Your task to perform on an android device: toggle translation in the chrome app Image 0: 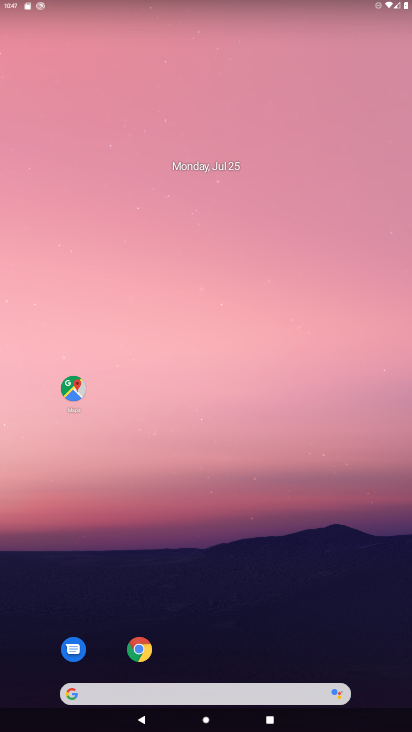
Step 0: click (141, 648)
Your task to perform on an android device: toggle translation in the chrome app Image 1: 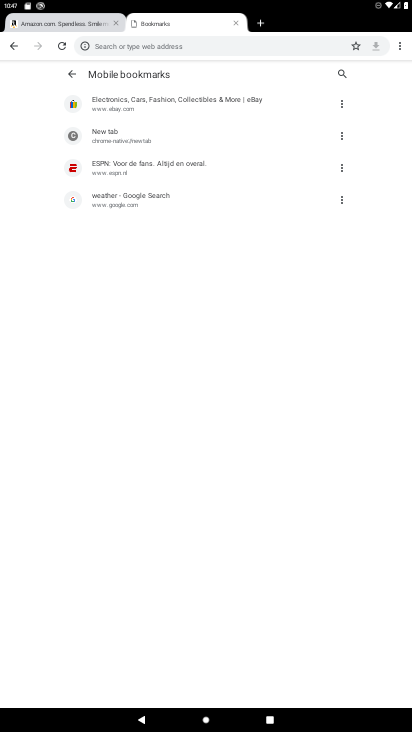
Step 1: click (400, 47)
Your task to perform on an android device: toggle translation in the chrome app Image 2: 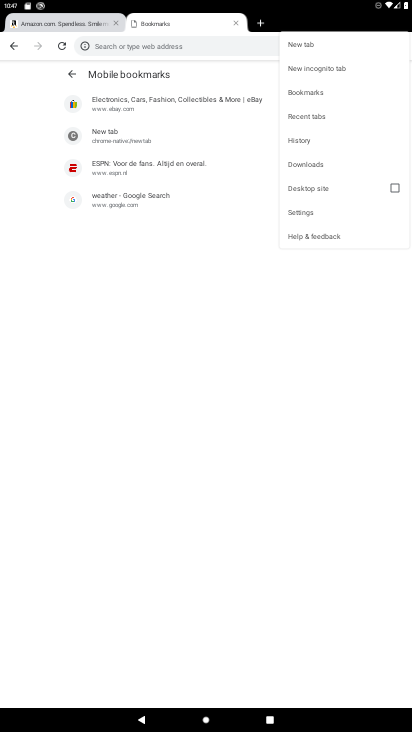
Step 2: click (297, 210)
Your task to perform on an android device: toggle translation in the chrome app Image 3: 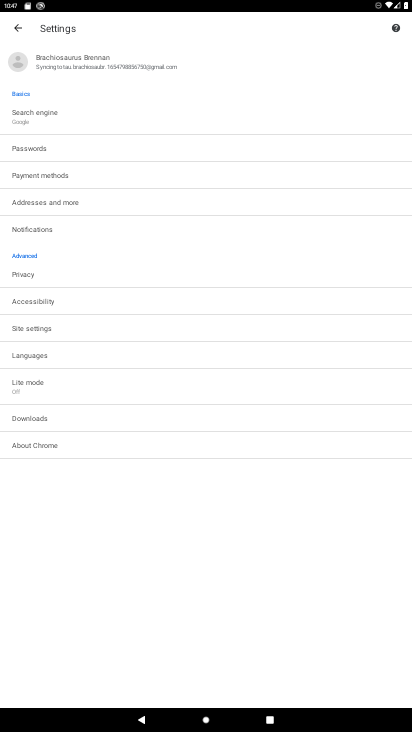
Step 3: click (34, 354)
Your task to perform on an android device: toggle translation in the chrome app Image 4: 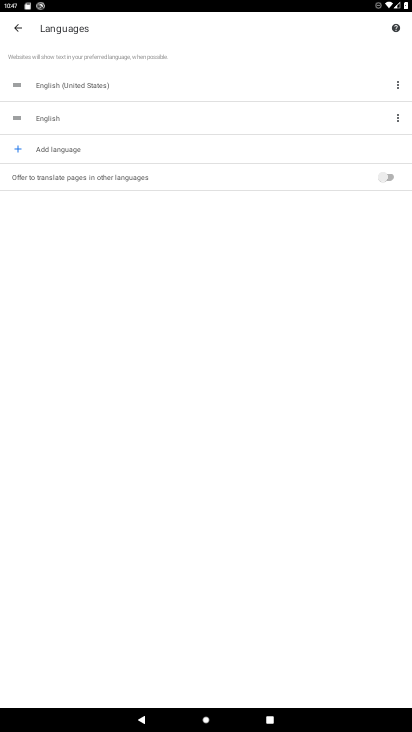
Step 4: click (388, 179)
Your task to perform on an android device: toggle translation in the chrome app Image 5: 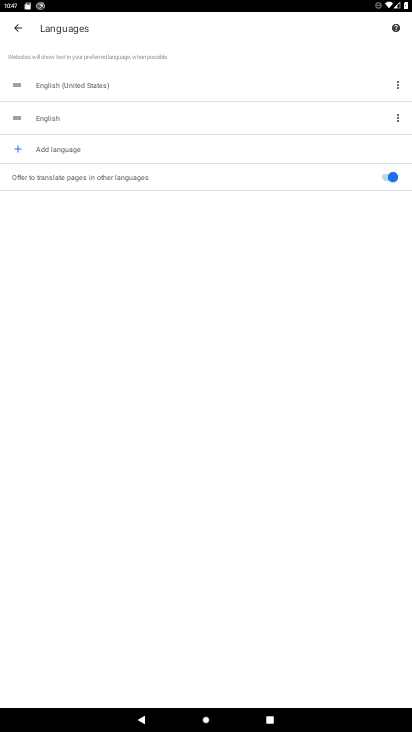
Step 5: task complete